Your task to perform on an android device: open a new tab in the chrome app Image 0: 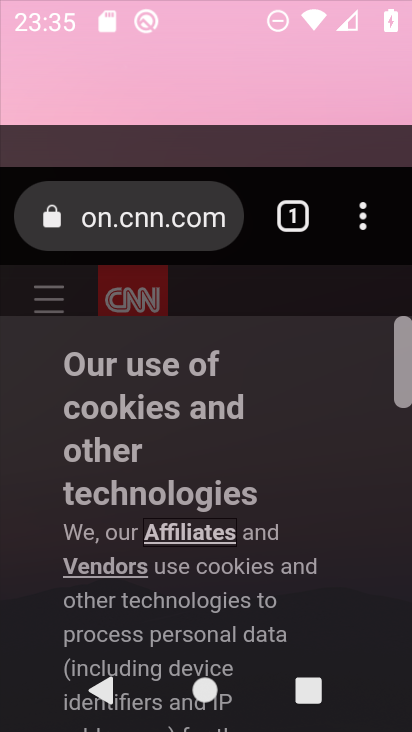
Step 0: drag from (354, 192) to (380, 99)
Your task to perform on an android device: open a new tab in the chrome app Image 1: 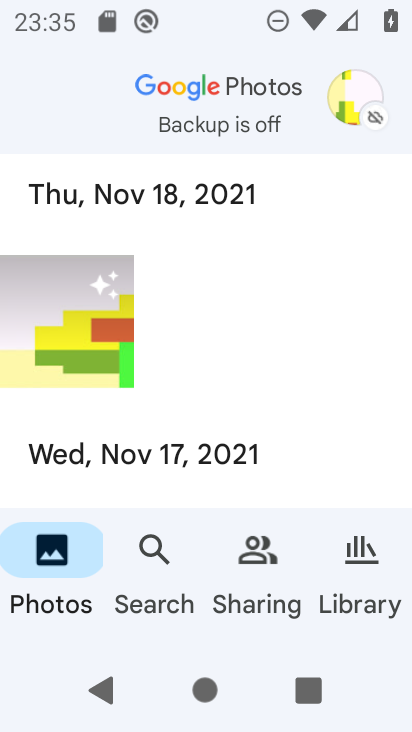
Step 1: press home button
Your task to perform on an android device: open a new tab in the chrome app Image 2: 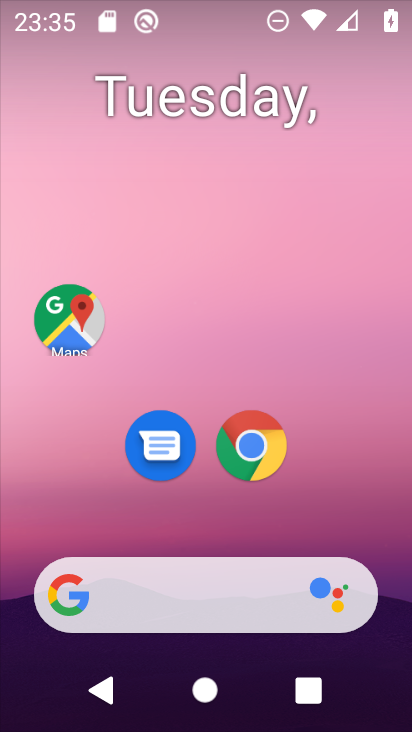
Step 2: click (240, 447)
Your task to perform on an android device: open a new tab in the chrome app Image 3: 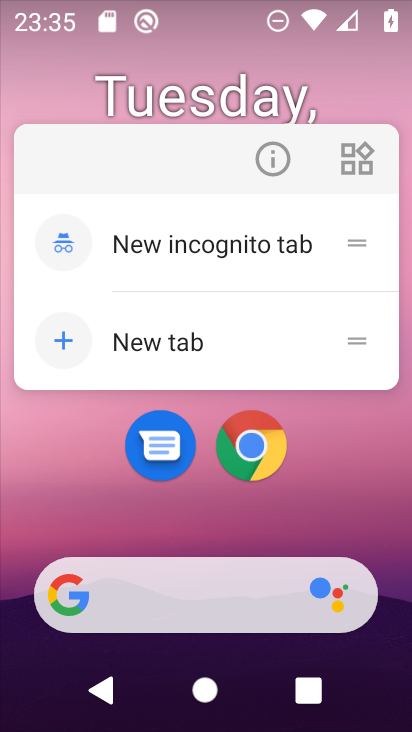
Step 3: click (254, 452)
Your task to perform on an android device: open a new tab in the chrome app Image 4: 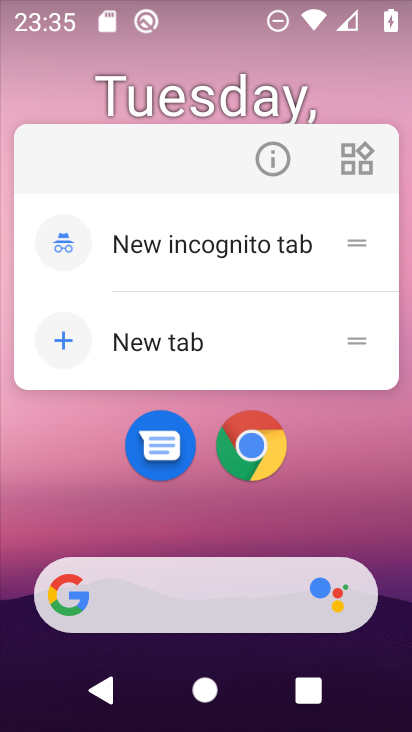
Step 4: click (255, 452)
Your task to perform on an android device: open a new tab in the chrome app Image 5: 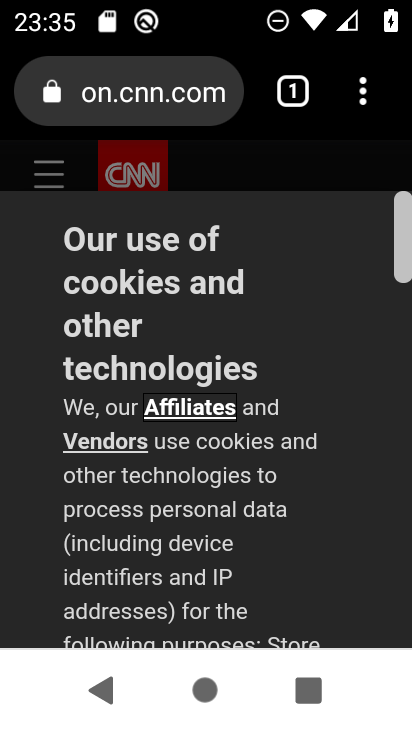
Step 5: click (359, 90)
Your task to perform on an android device: open a new tab in the chrome app Image 6: 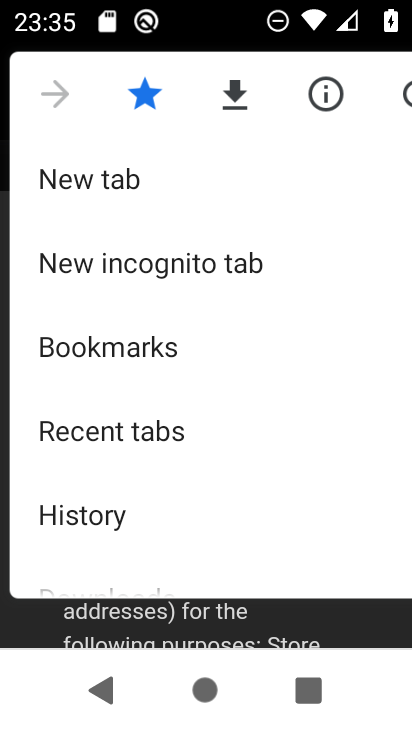
Step 6: click (219, 173)
Your task to perform on an android device: open a new tab in the chrome app Image 7: 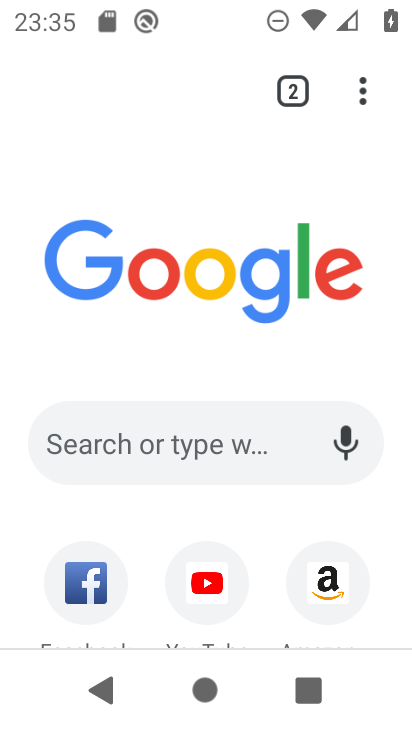
Step 7: task complete